Your task to perform on an android device: allow cookies in the chrome app Image 0: 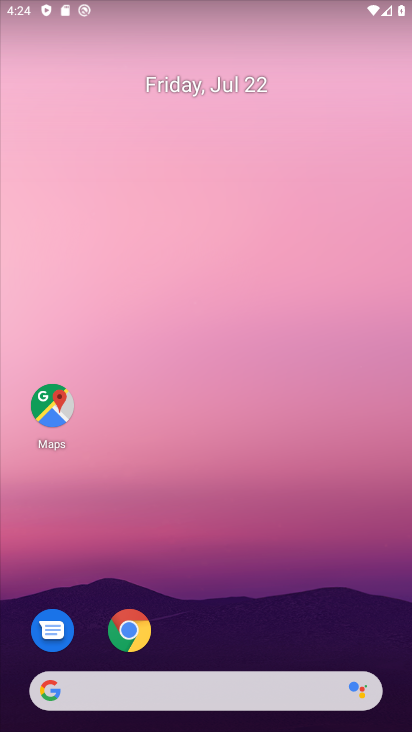
Step 0: click (121, 633)
Your task to perform on an android device: allow cookies in the chrome app Image 1: 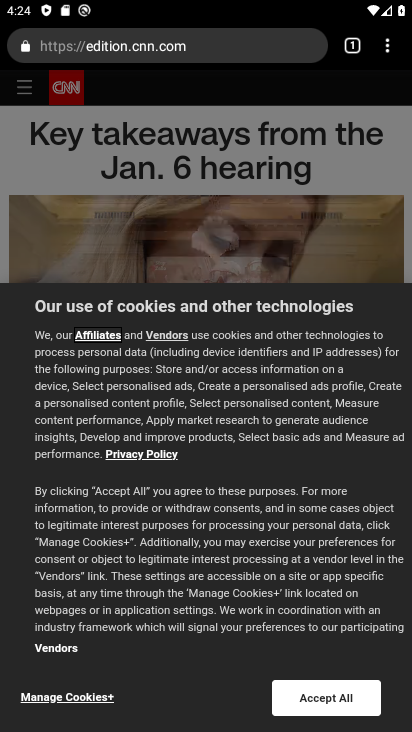
Step 1: click (385, 43)
Your task to perform on an android device: allow cookies in the chrome app Image 2: 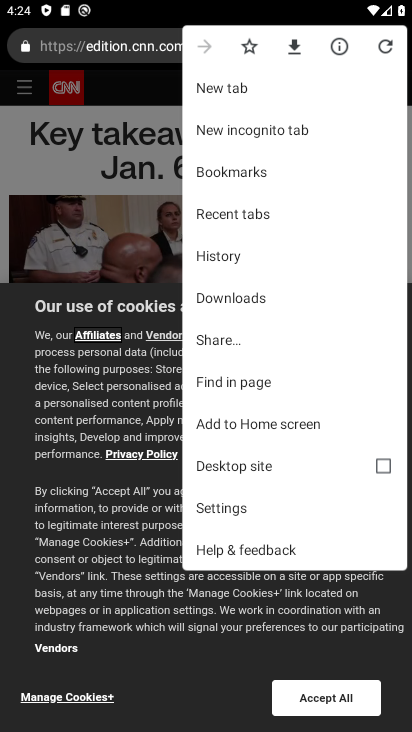
Step 2: click (245, 504)
Your task to perform on an android device: allow cookies in the chrome app Image 3: 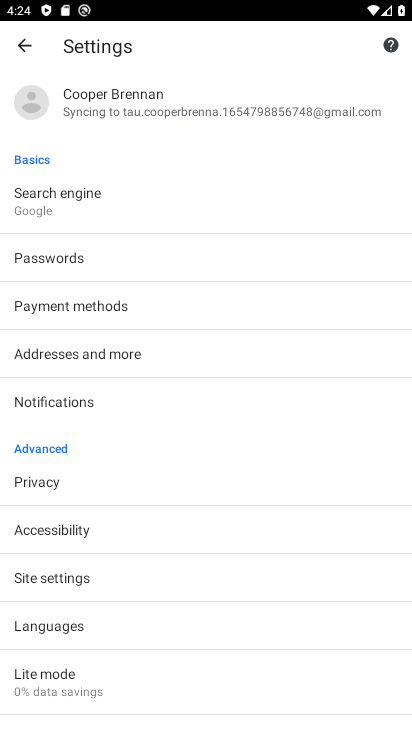
Step 3: click (55, 575)
Your task to perform on an android device: allow cookies in the chrome app Image 4: 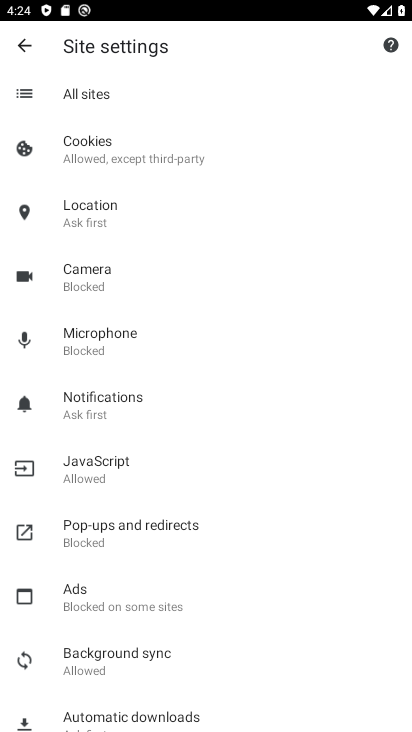
Step 4: click (75, 149)
Your task to perform on an android device: allow cookies in the chrome app Image 5: 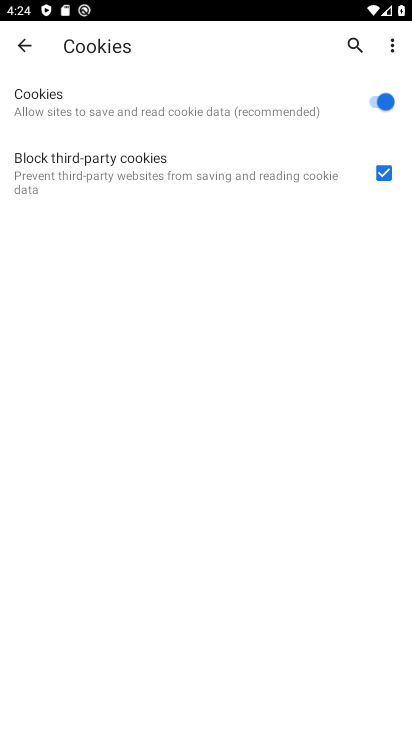
Step 5: task complete